Your task to perform on an android device: Open maps Image 0: 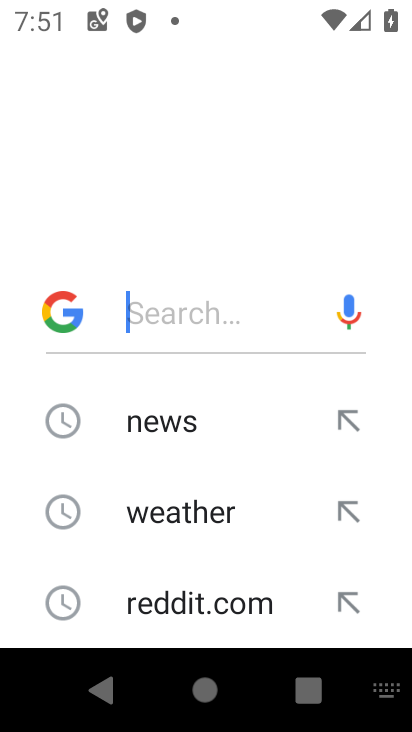
Step 0: drag from (232, 385) to (247, 301)
Your task to perform on an android device: Open maps Image 1: 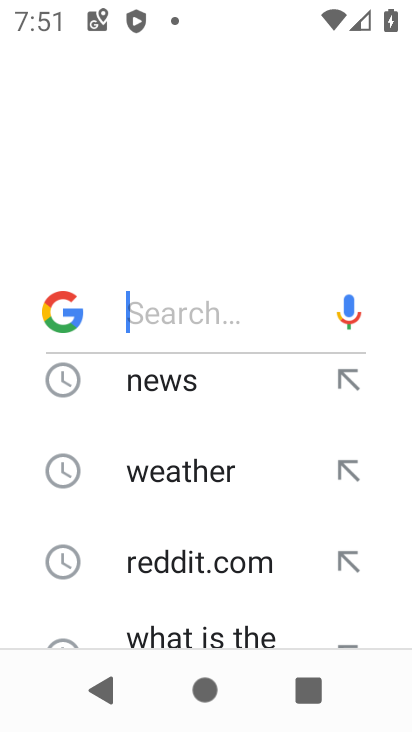
Step 1: press home button
Your task to perform on an android device: Open maps Image 2: 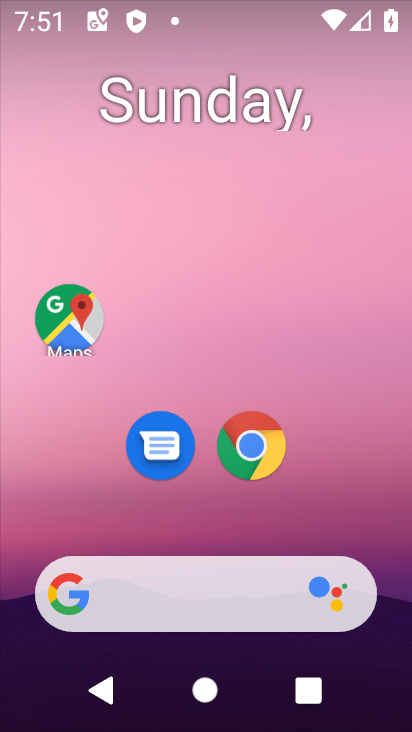
Step 2: drag from (237, 529) to (301, 208)
Your task to perform on an android device: Open maps Image 3: 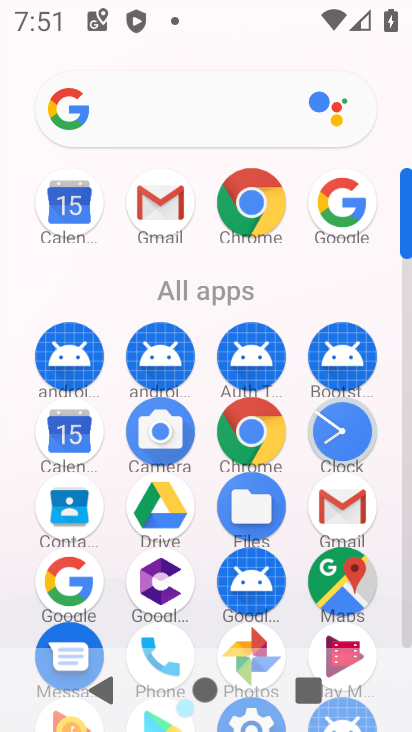
Step 3: drag from (264, 446) to (306, 269)
Your task to perform on an android device: Open maps Image 4: 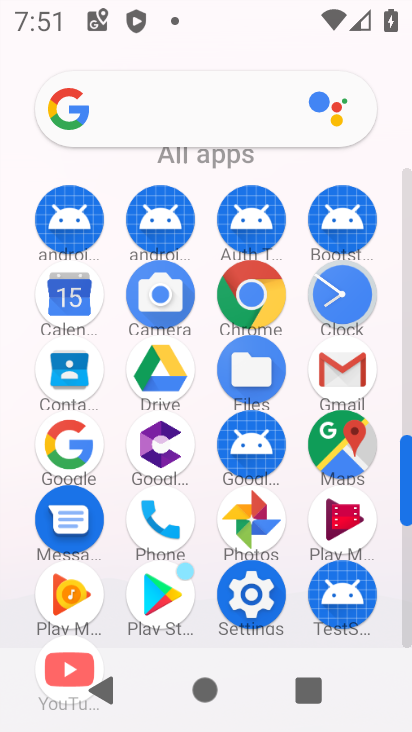
Step 4: click (361, 477)
Your task to perform on an android device: Open maps Image 5: 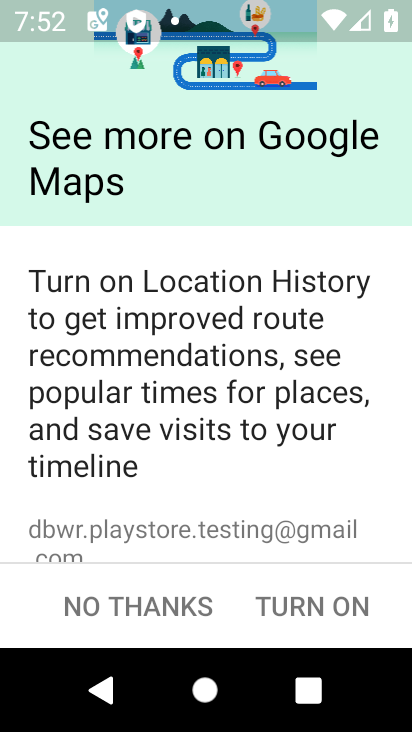
Step 5: click (332, 618)
Your task to perform on an android device: Open maps Image 6: 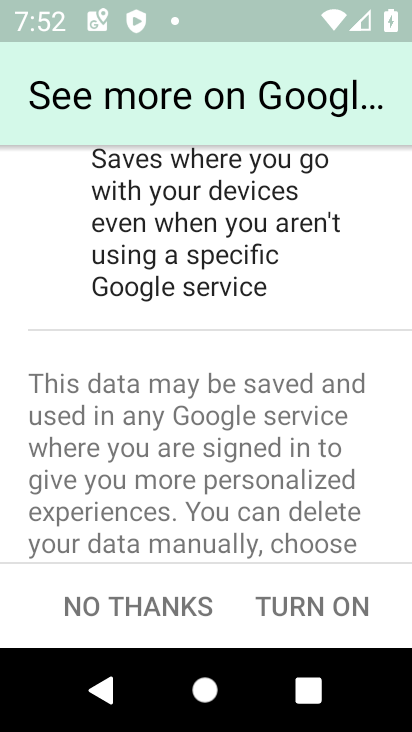
Step 6: click (330, 607)
Your task to perform on an android device: Open maps Image 7: 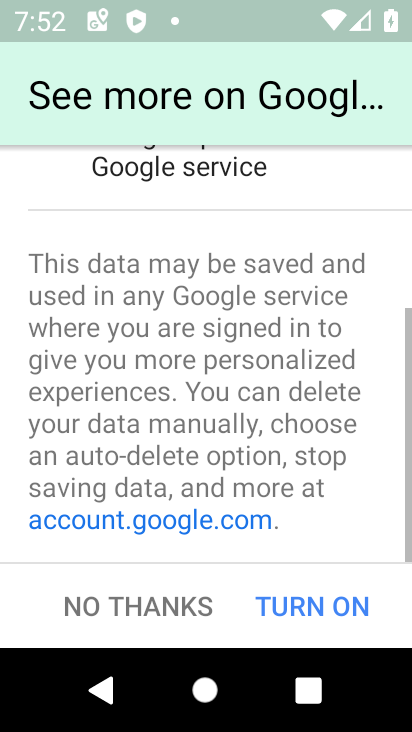
Step 7: click (330, 607)
Your task to perform on an android device: Open maps Image 8: 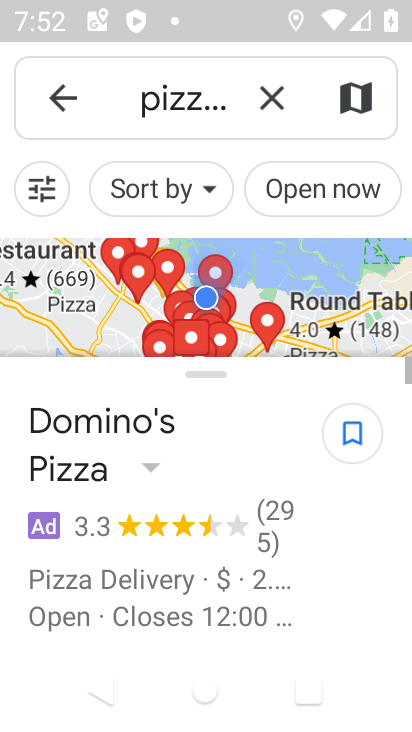
Step 8: click (330, 607)
Your task to perform on an android device: Open maps Image 9: 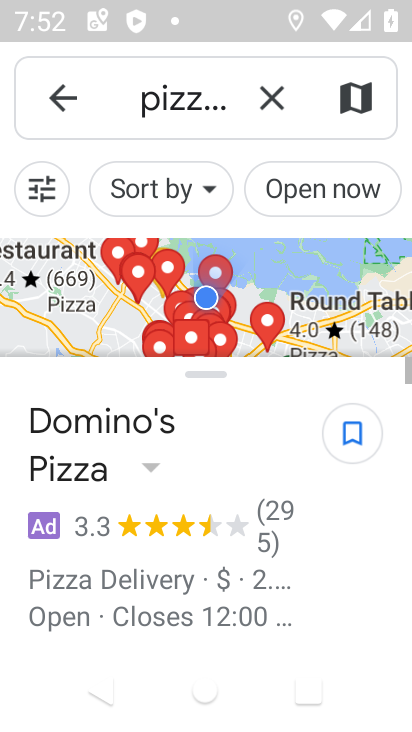
Step 9: task complete